Your task to perform on an android device: toggle sleep mode Image 0: 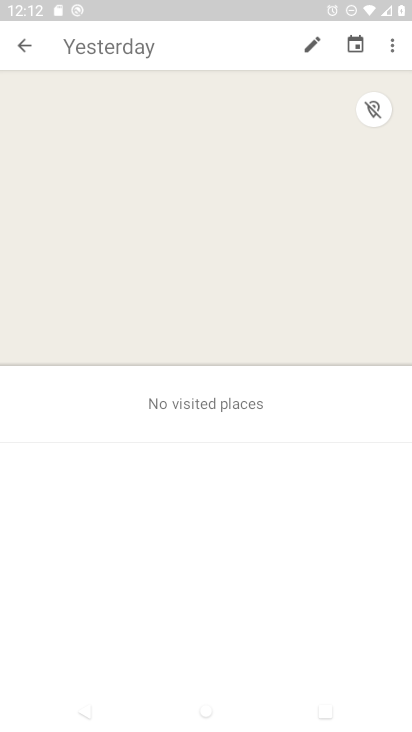
Step 0: press home button
Your task to perform on an android device: toggle sleep mode Image 1: 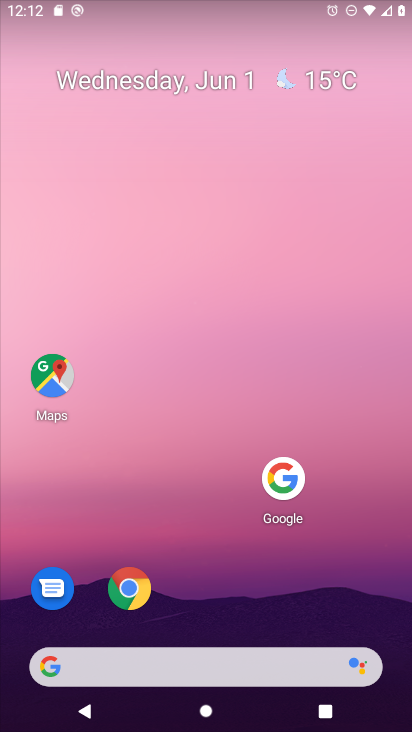
Step 1: drag from (175, 659) to (313, 98)
Your task to perform on an android device: toggle sleep mode Image 2: 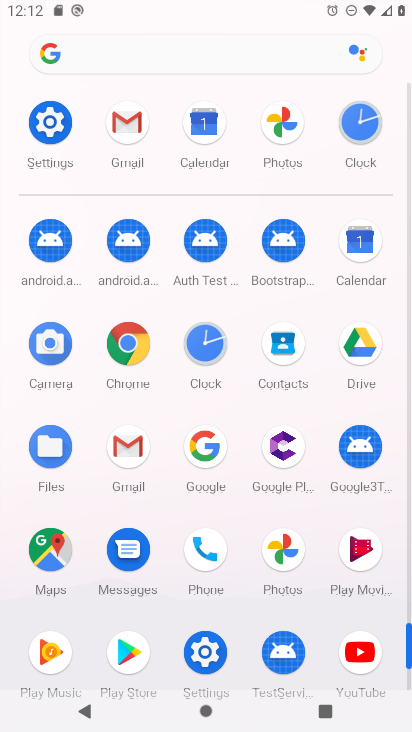
Step 2: click (56, 131)
Your task to perform on an android device: toggle sleep mode Image 3: 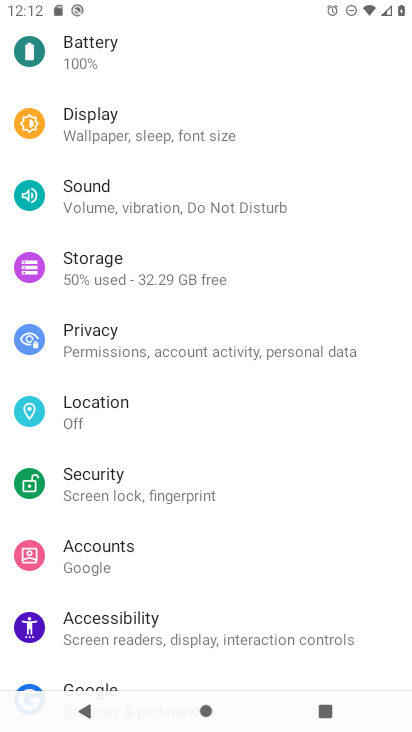
Step 3: click (153, 131)
Your task to perform on an android device: toggle sleep mode Image 4: 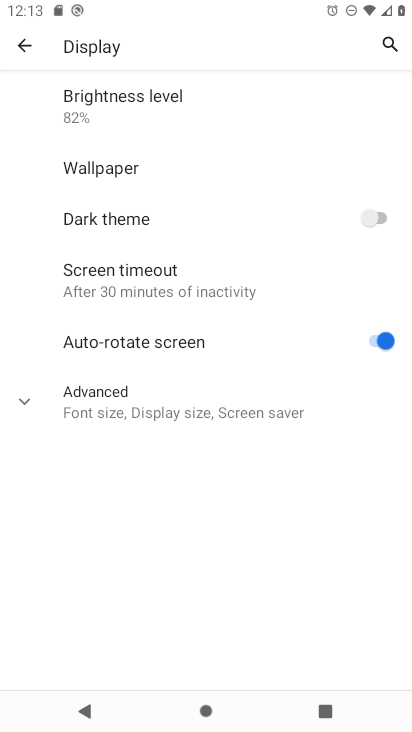
Step 4: task complete